Your task to perform on an android device: see sites visited before in the chrome app Image 0: 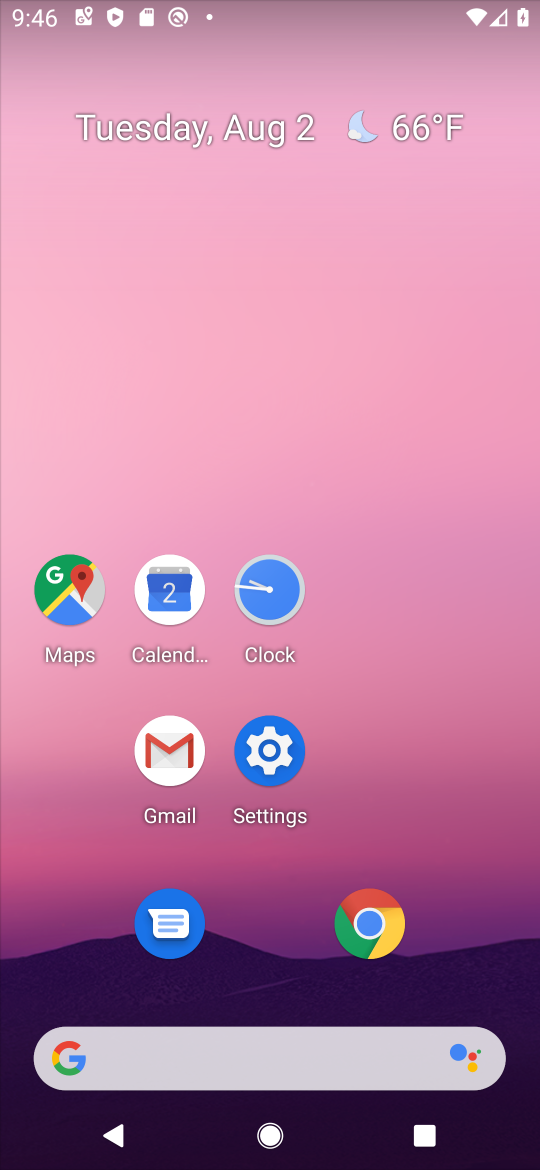
Step 0: click (358, 916)
Your task to perform on an android device: see sites visited before in the chrome app Image 1: 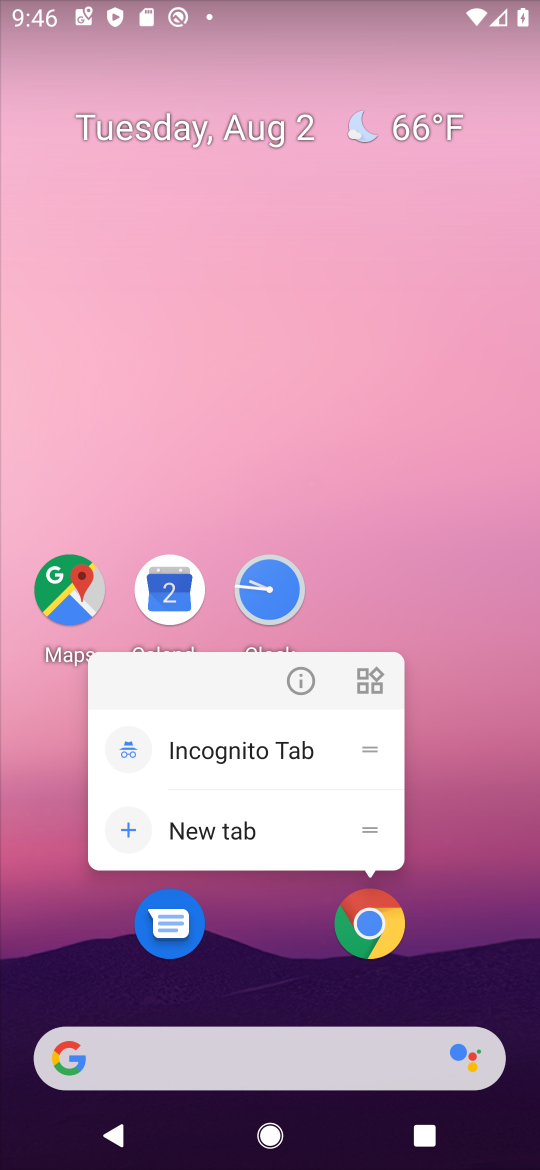
Step 1: click (368, 915)
Your task to perform on an android device: see sites visited before in the chrome app Image 2: 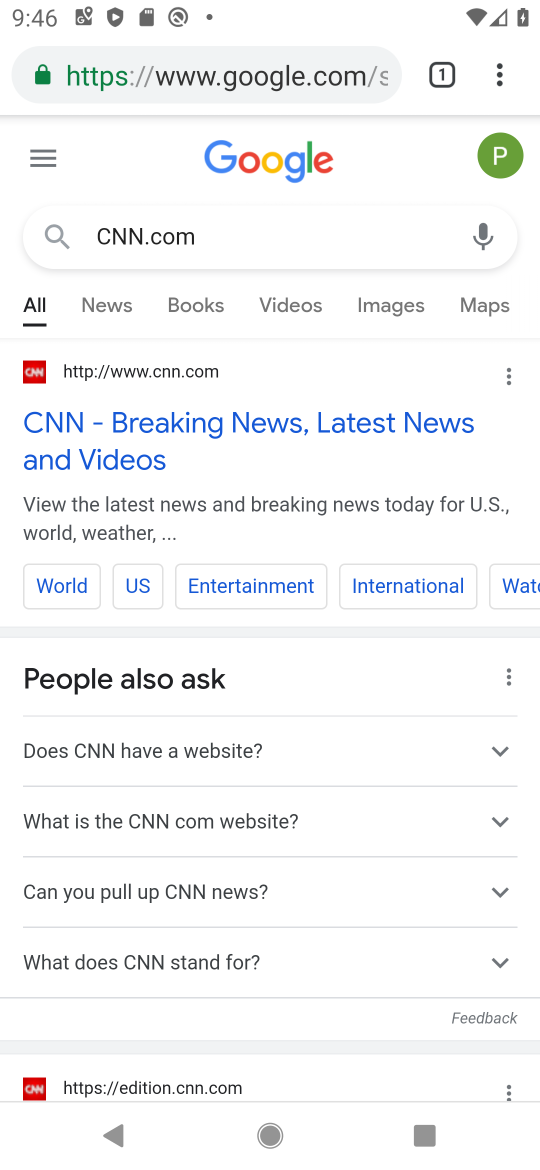
Step 2: click (503, 73)
Your task to perform on an android device: see sites visited before in the chrome app Image 3: 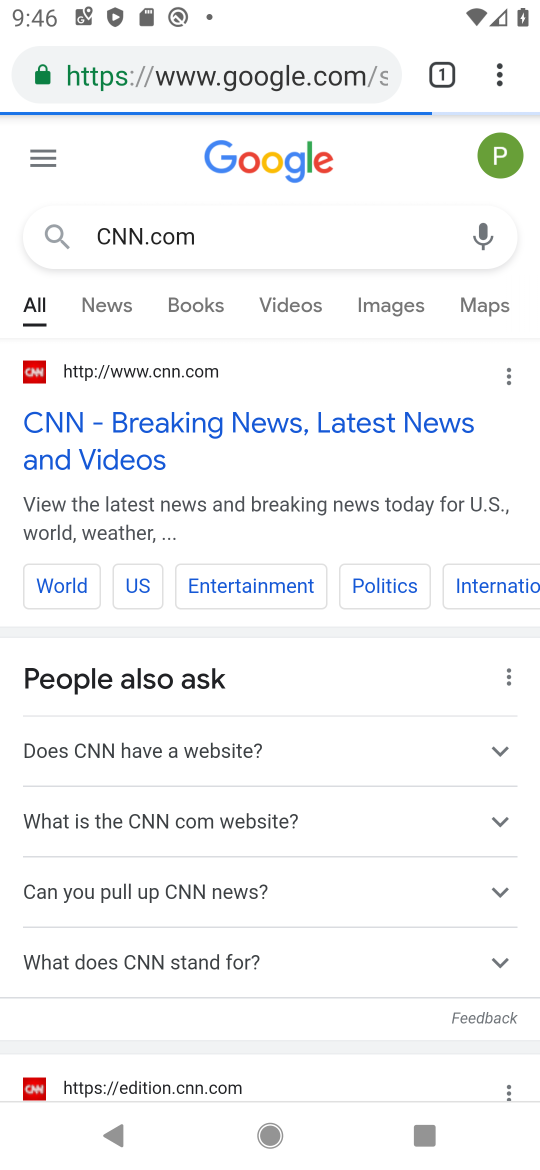
Step 3: click (503, 73)
Your task to perform on an android device: see sites visited before in the chrome app Image 4: 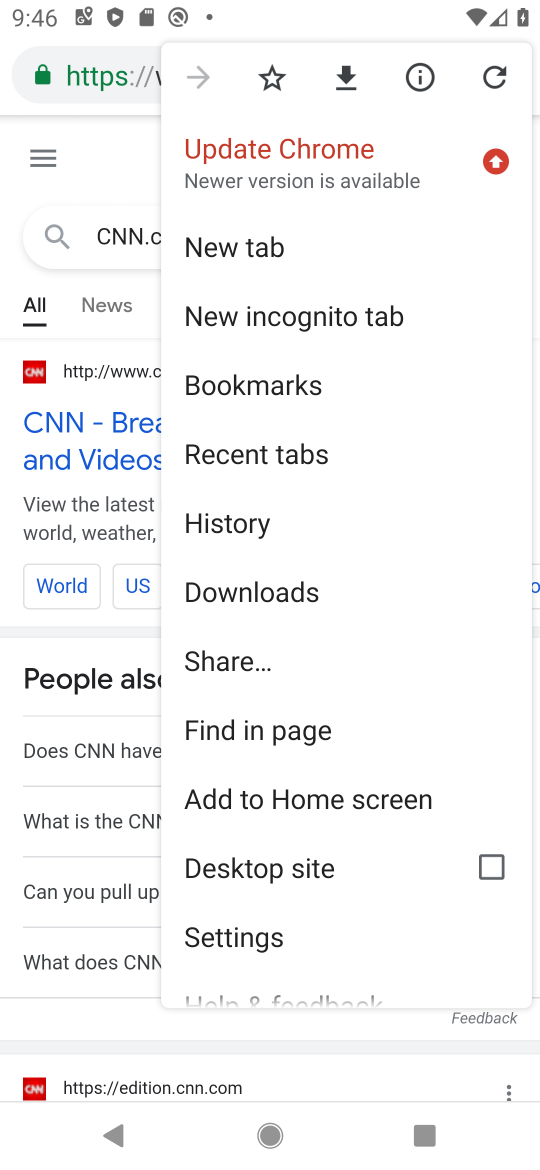
Step 4: click (237, 454)
Your task to perform on an android device: see sites visited before in the chrome app Image 5: 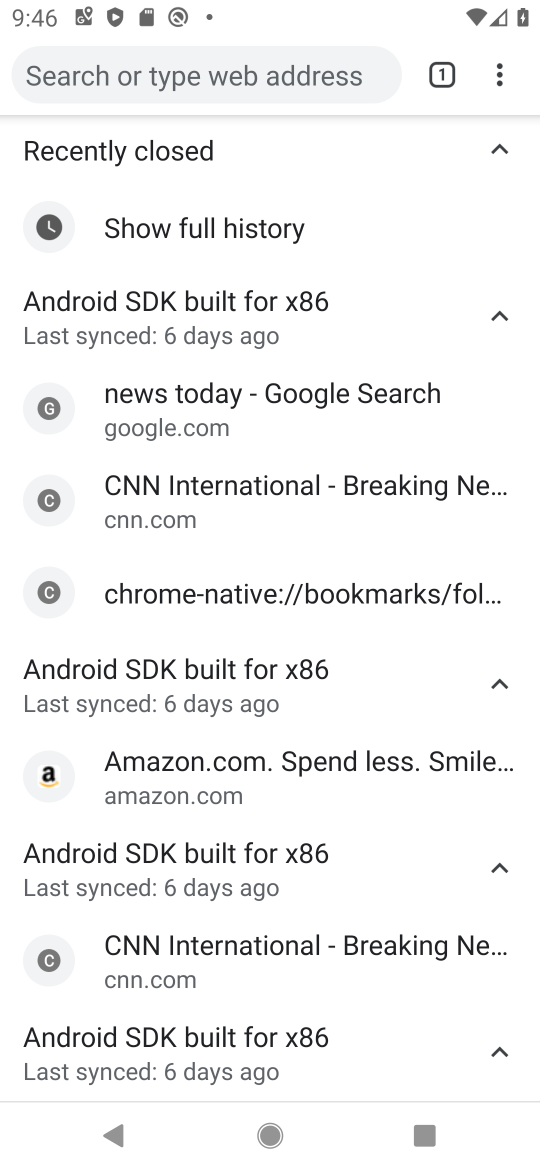
Step 5: task complete